Your task to perform on an android device: Open the map Image 0: 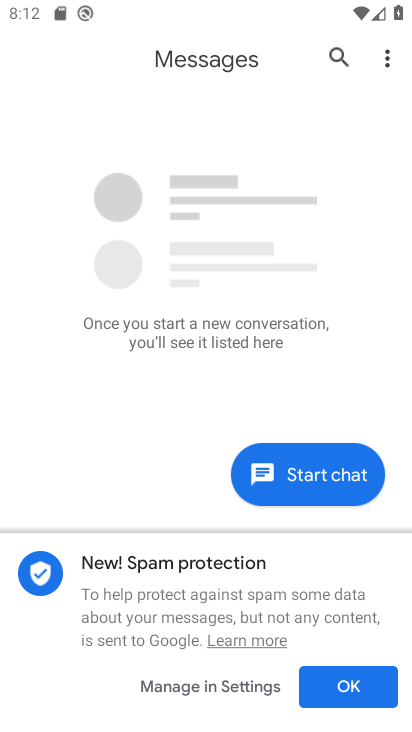
Step 0: press home button
Your task to perform on an android device: Open the map Image 1: 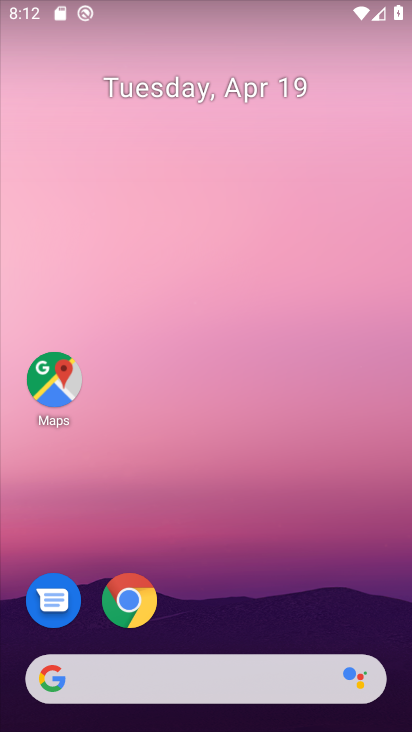
Step 1: drag from (358, 485) to (354, 127)
Your task to perform on an android device: Open the map Image 2: 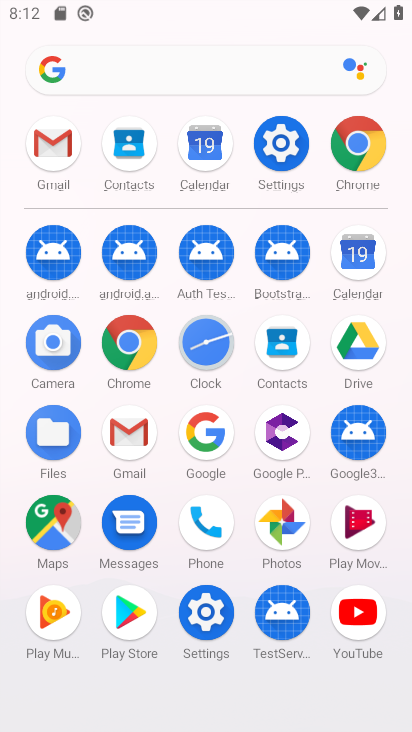
Step 2: click (51, 526)
Your task to perform on an android device: Open the map Image 3: 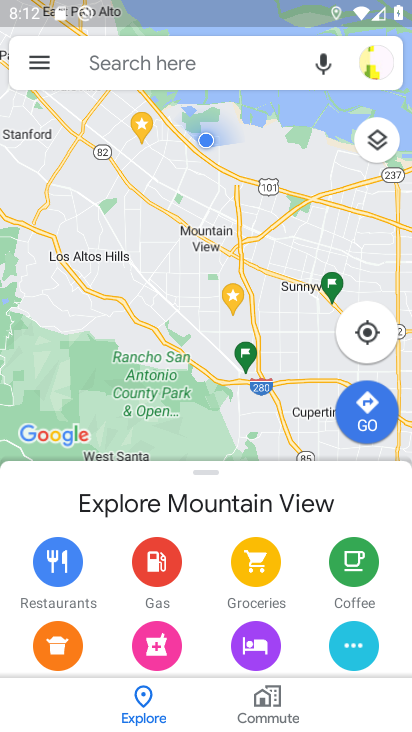
Step 3: task complete